Your task to perform on an android device: turn off picture-in-picture Image 0: 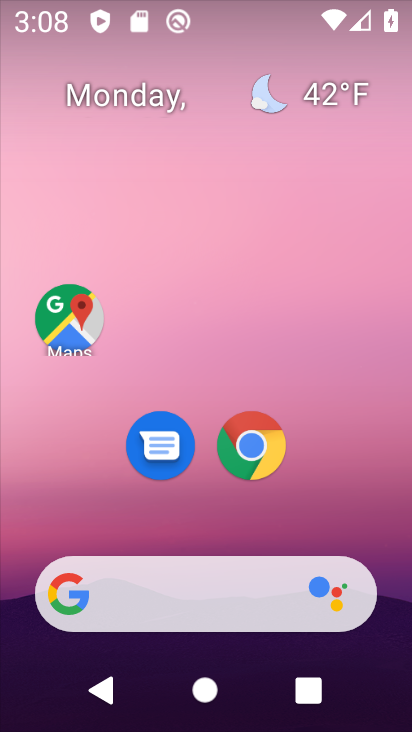
Step 0: drag from (13, 533) to (197, 23)
Your task to perform on an android device: turn off picture-in-picture Image 1: 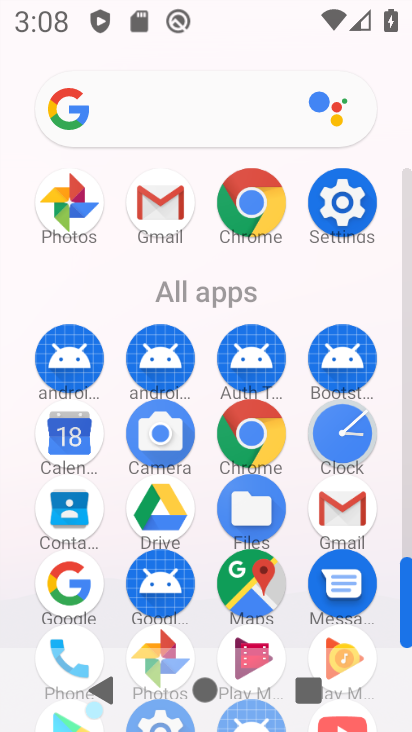
Step 1: click (252, 216)
Your task to perform on an android device: turn off picture-in-picture Image 2: 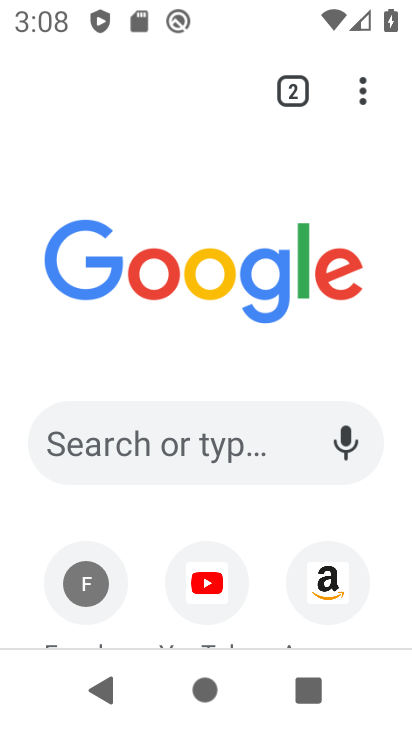
Step 2: click (365, 89)
Your task to perform on an android device: turn off picture-in-picture Image 3: 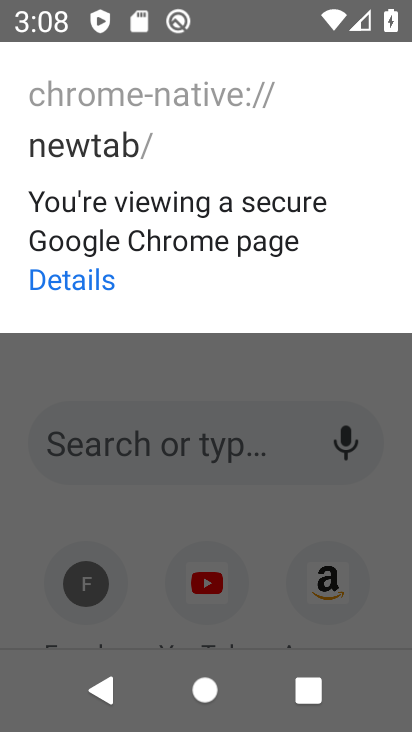
Step 3: task complete